Your task to perform on an android device: allow notifications from all sites in the chrome app Image 0: 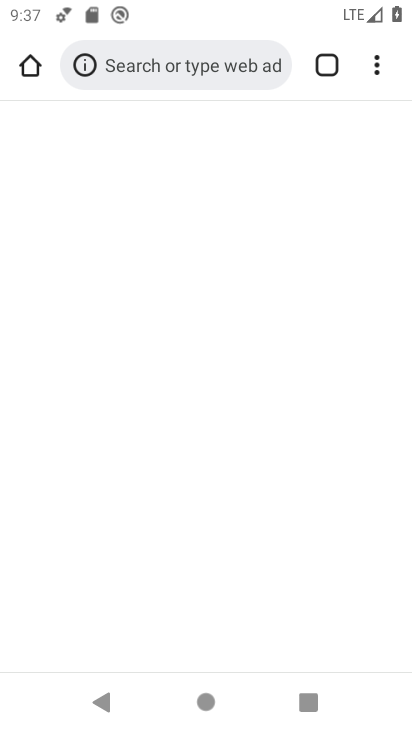
Step 0: click (335, 97)
Your task to perform on an android device: allow notifications from all sites in the chrome app Image 1: 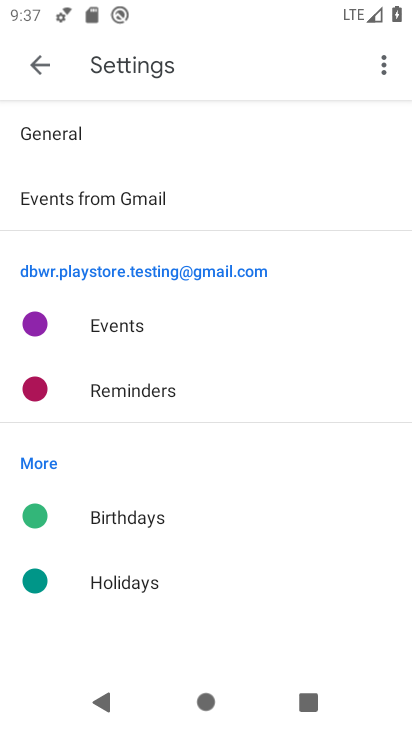
Step 1: press home button
Your task to perform on an android device: allow notifications from all sites in the chrome app Image 2: 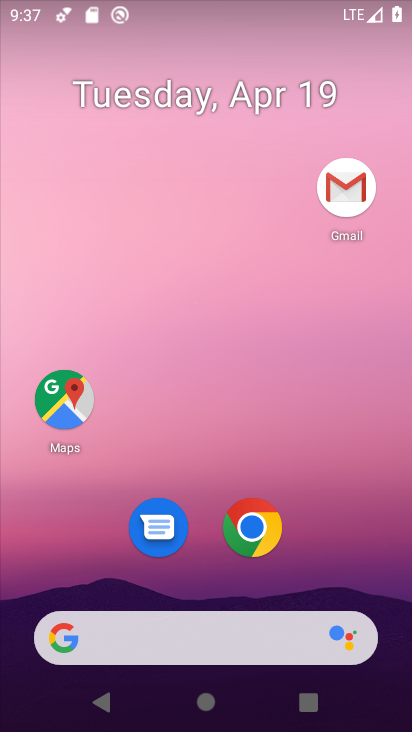
Step 2: drag from (368, 550) to (348, 89)
Your task to perform on an android device: allow notifications from all sites in the chrome app Image 3: 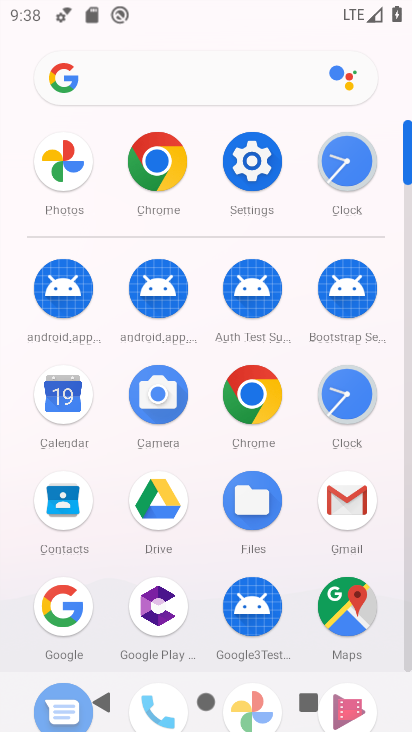
Step 3: click (244, 405)
Your task to perform on an android device: allow notifications from all sites in the chrome app Image 4: 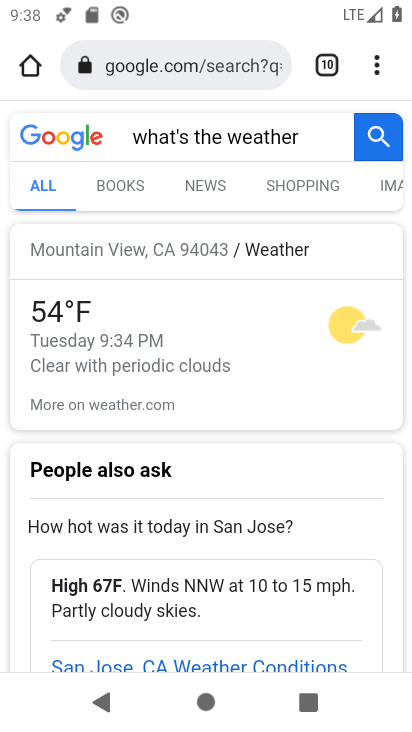
Step 4: click (383, 90)
Your task to perform on an android device: allow notifications from all sites in the chrome app Image 5: 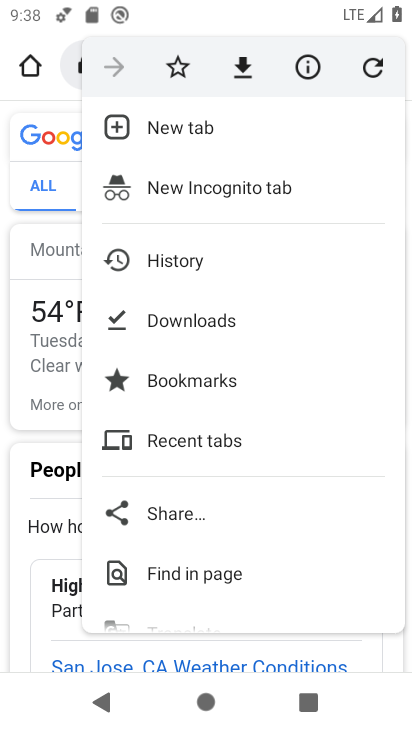
Step 5: drag from (246, 552) to (273, 316)
Your task to perform on an android device: allow notifications from all sites in the chrome app Image 6: 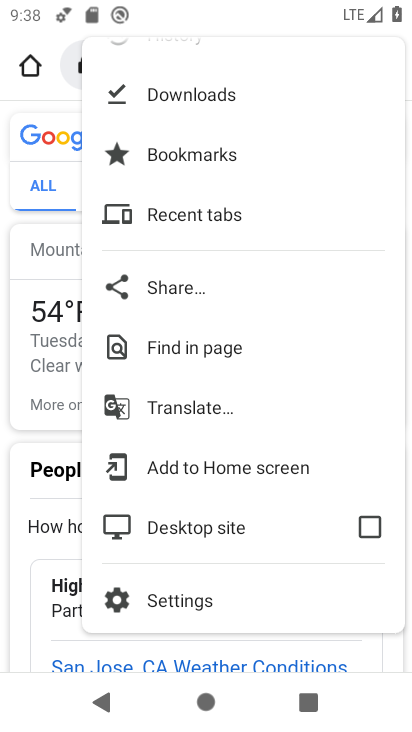
Step 6: click (209, 598)
Your task to perform on an android device: allow notifications from all sites in the chrome app Image 7: 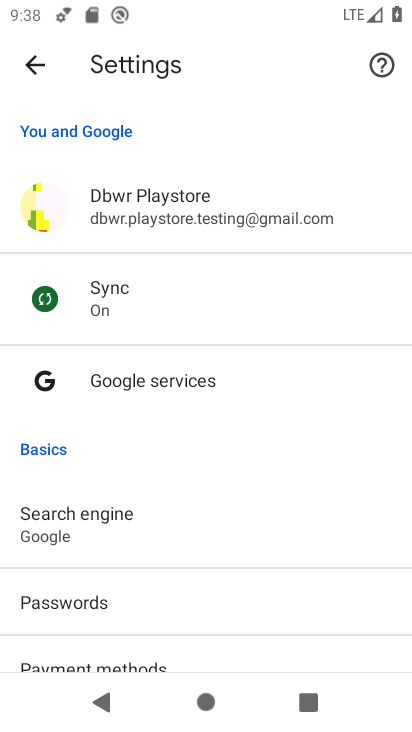
Step 7: drag from (340, 614) to (328, 273)
Your task to perform on an android device: allow notifications from all sites in the chrome app Image 8: 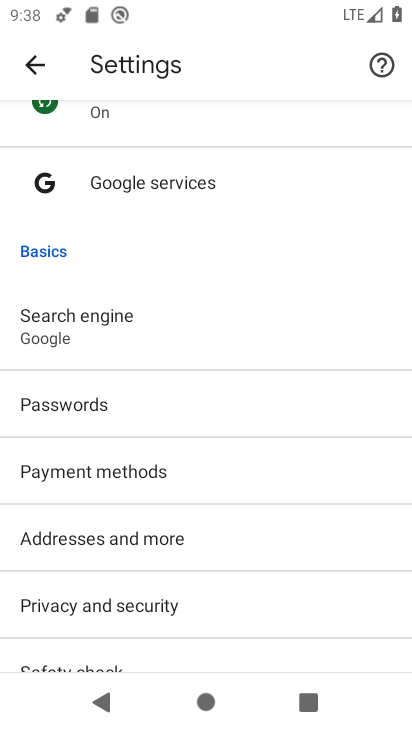
Step 8: drag from (334, 638) to (325, 259)
Your task to perform on an android device: allow notifications from all sites in the chrome app Image 9: 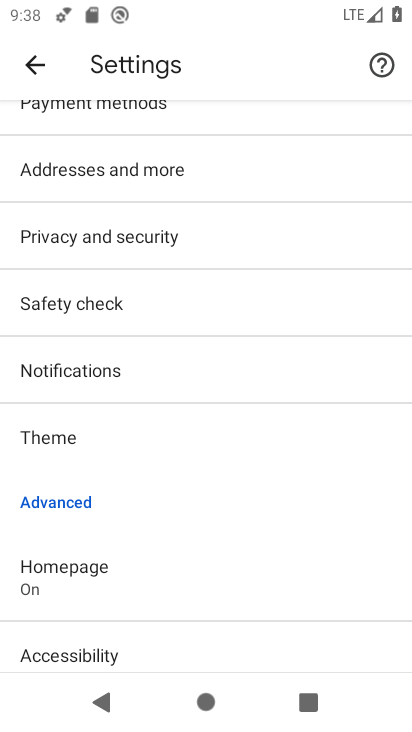
Step 9: drag from (293, 494) to (292, 268)
Your task to perform on an android device: allow notifications from all sites in the chrome app Image 10: 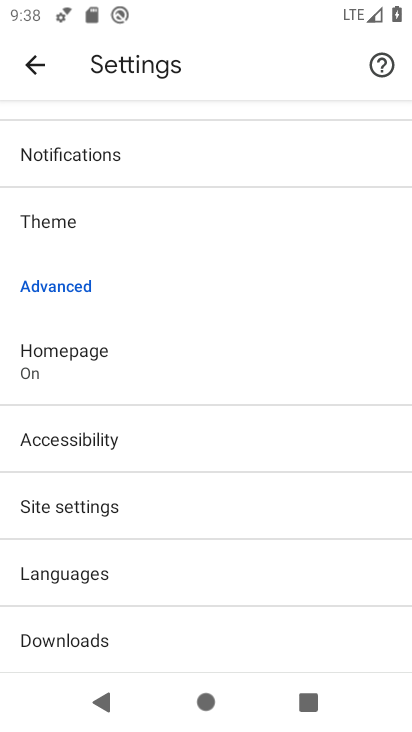
Step 10: click (59, 513)
Your task to perform on an android device: allow notifications from all sites in the chrome app Image 11: 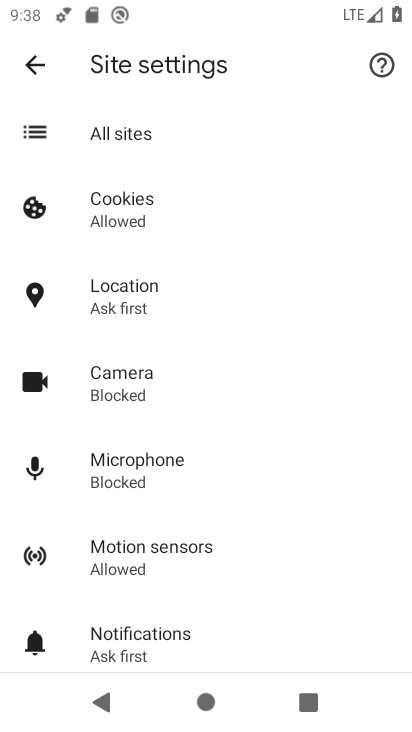
Step 11: click (149, 132)
Your task to perform on an android device: allow notifications from all sites in the chrome app Image 12: 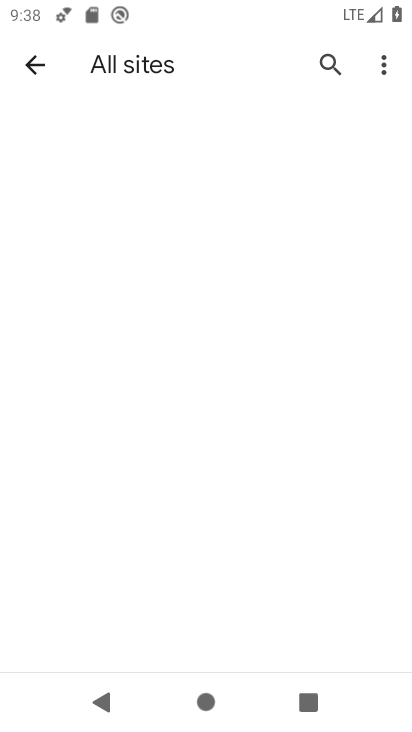
Step 12: task complete